Your task to perform on an android device: turn on improve location accuracy Image 0: 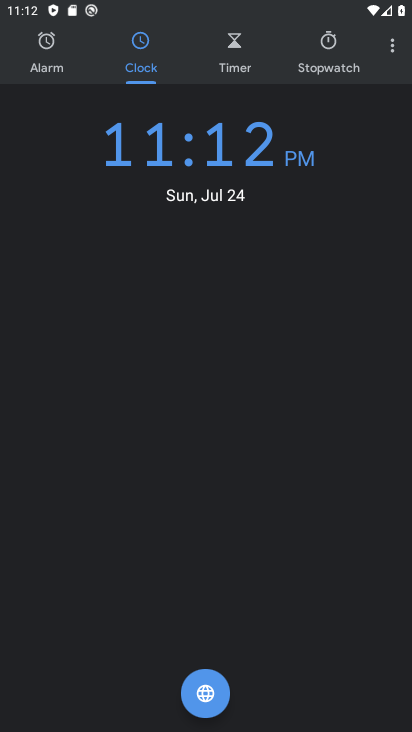
Step 0: press home button
Your task to perform on an android device: turn on improve location accuracy Image 1: 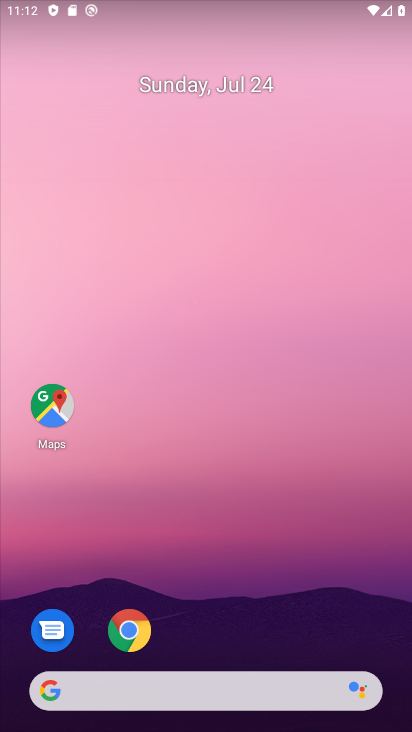
Step 1: drag from (248, 636) to (175, 15)
Your task to perform on an android device: turn on improve location accuracy Image 2: 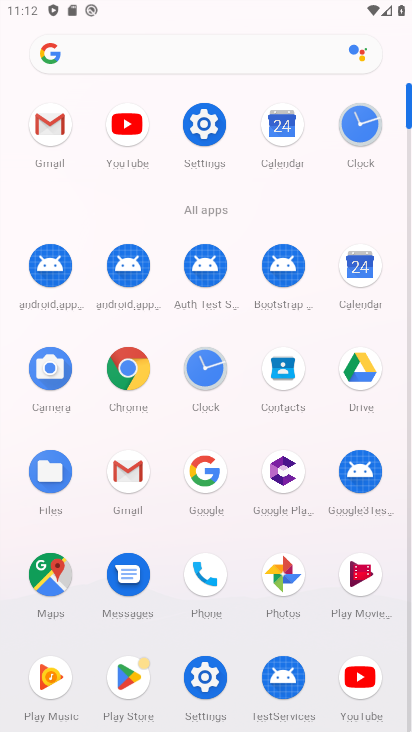
Step 2: click (205, 137)
Your task to perform on an android device: turn on improve location accuracy Image 3: 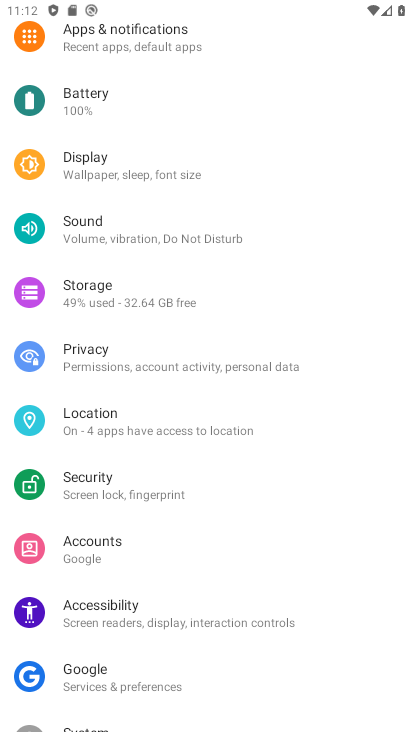
Step 3: click (95, 435)
Your task to perform on an android device: turn on improve location accuracy Image 4: 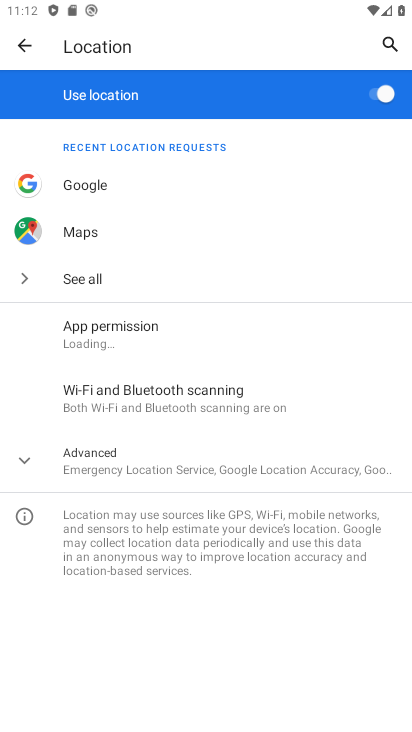
Step 4: click (106, 455)
Your task to perform on an android device: turn on improve location accuracy Image 5: 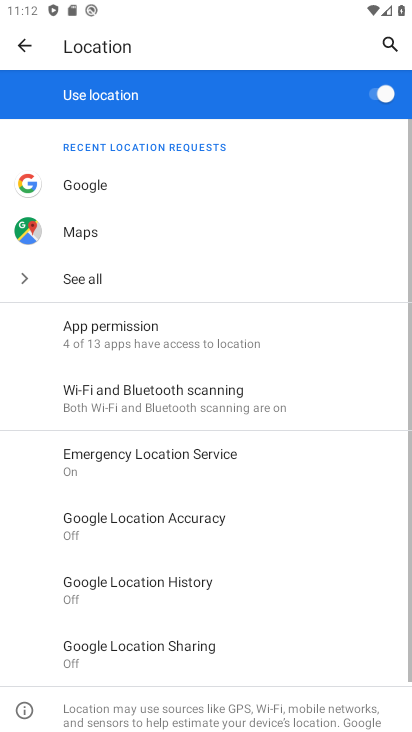
Step 5: click (133, 512)
Your task to perform on an android device: turn on improve location accuracy Image 6: 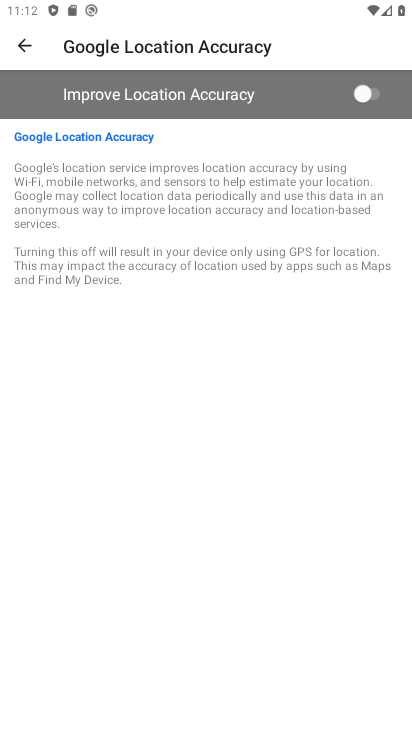
Step 6: click (359, 88)
Your task to perform on an android device: turn on improve location accuracy Image 7: 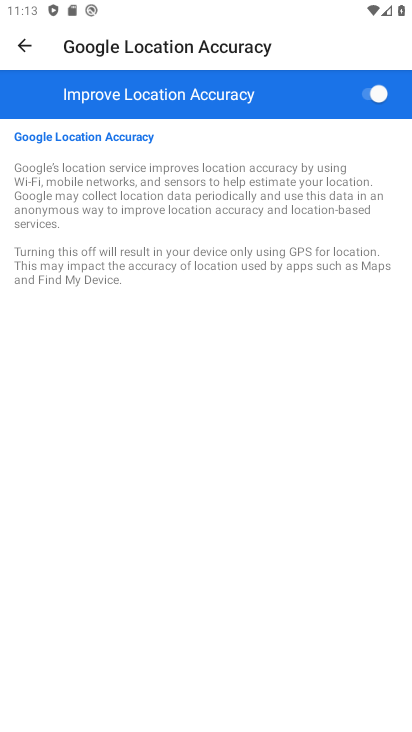
Step 7: task complete